Your task to perform on an android device: set an alarm Image 0: 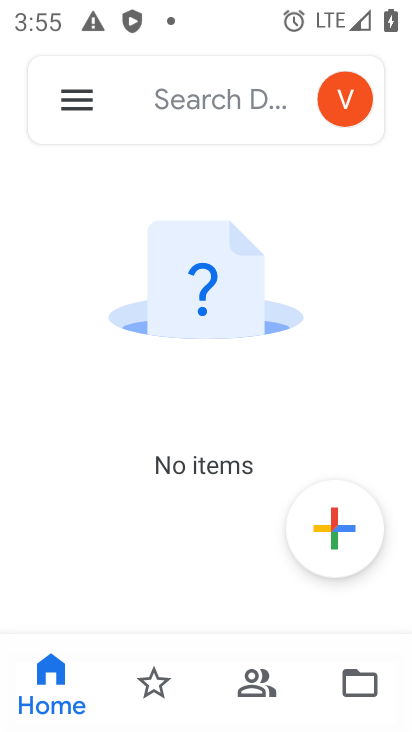
Step 0: drag from (323, 8) to (335, 52)
Your task to perform on an android device: set an alarm Image 1: 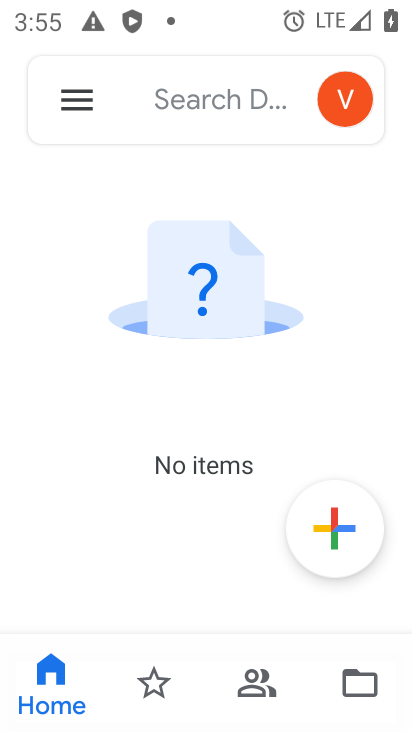
Step 1: press home button
Your task to perform on an android device: set an alarm Image 2: 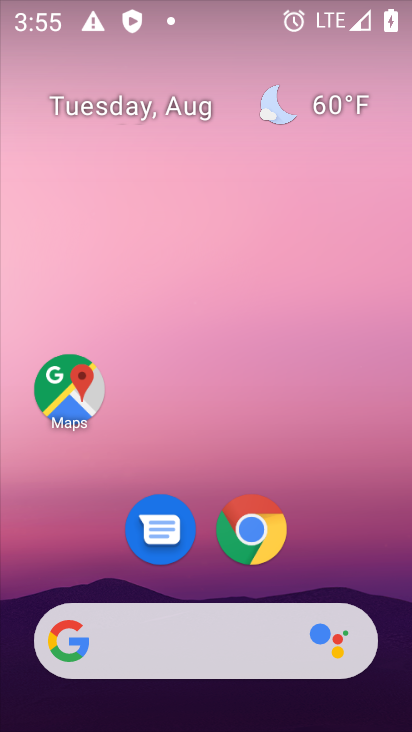
Step 2: drag from (365, 571) to (317, 60)
Your task to perform on an android device: set an alarm Image 3: 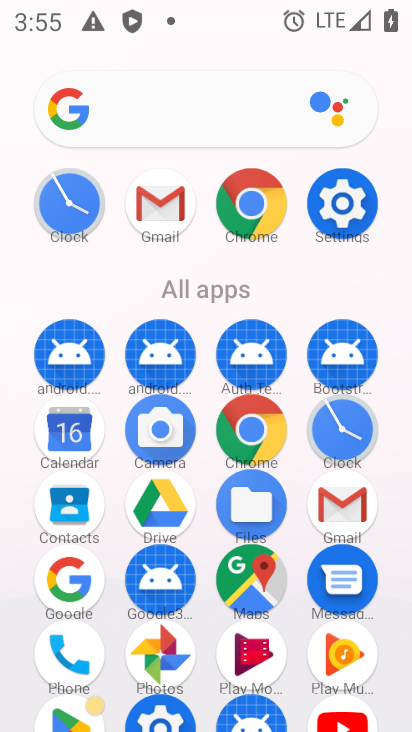
Step 3: click (349, 428)
Your task to perform on an android device: set an alarm Image 4: 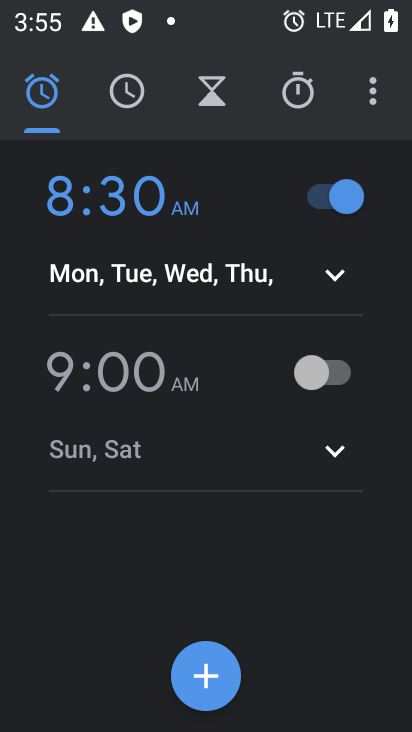
Step 4: click (214, 659)
Your task to perform on an android device: set an alarm Image 5: 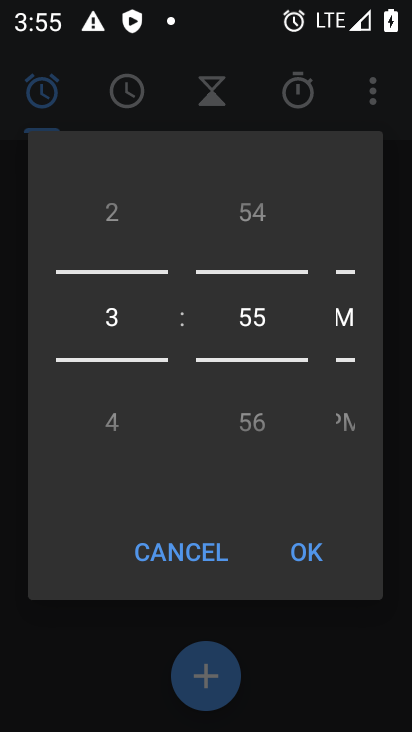
Step 5: click (317, 565)
Your task to perform on an android device: set an alarm Image 6: 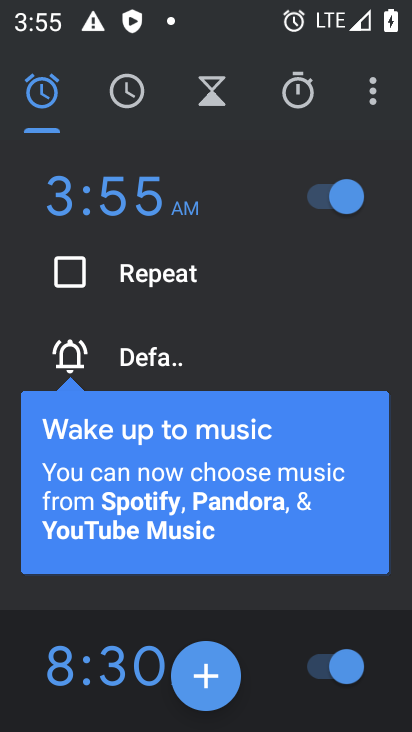
Step 6: task complete